Your task to perform on an android device: Open my contact list Image 0: 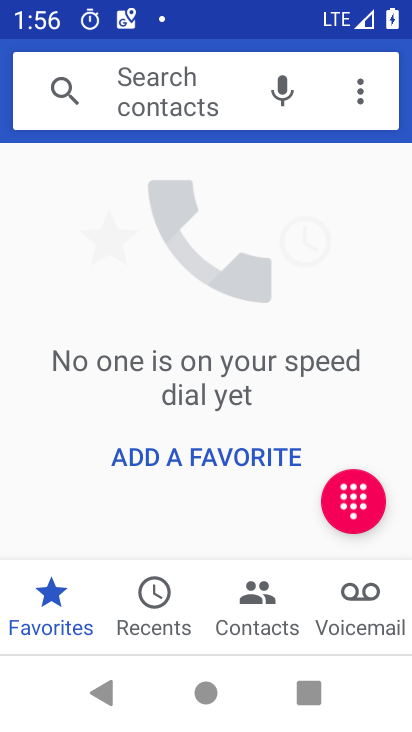
Step 0: click (264, 608)
Your task to perform on an android device: Open my contact list Image 1: 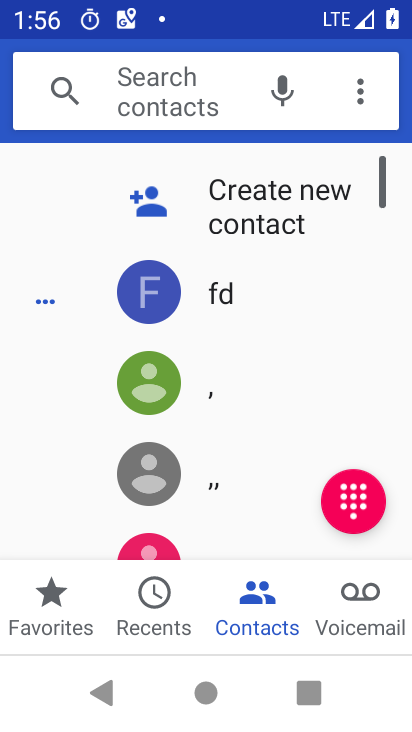
Step 1: task complete